Your task to perform on an android device: What is the capital of India? Image 0: 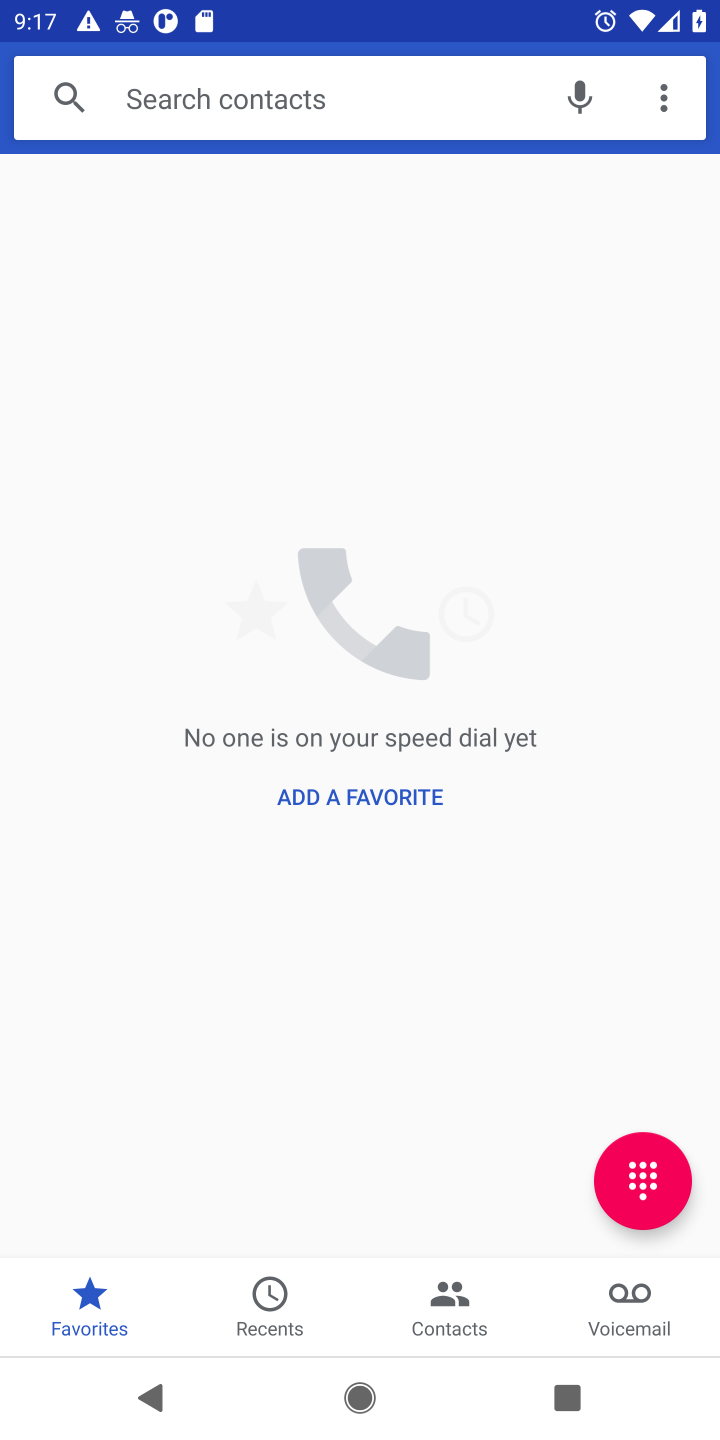
Step 0: press home button
Your task to perform on an android device: What is the capital of India? Image 1: 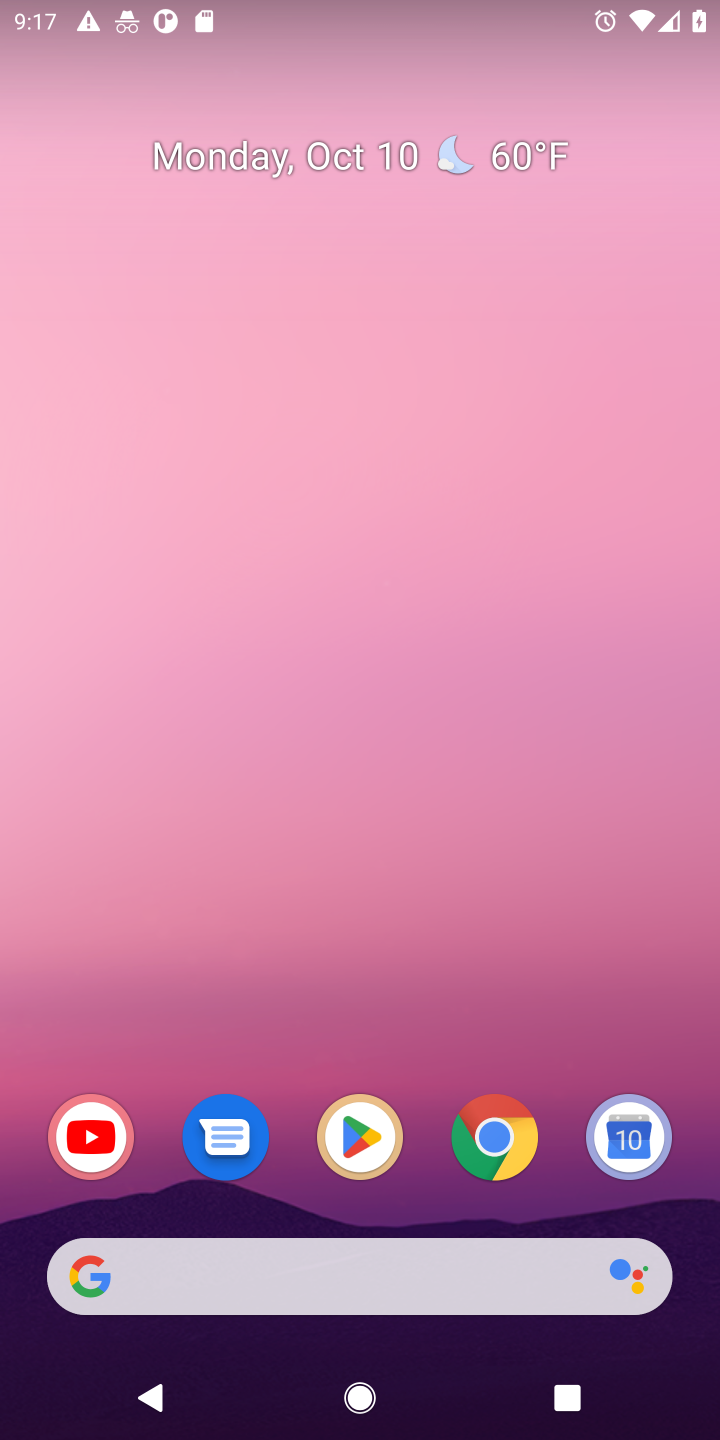
Step 1: click (499, 1138)
Your task to perform on an android device: What is the capital of India? Image 2: 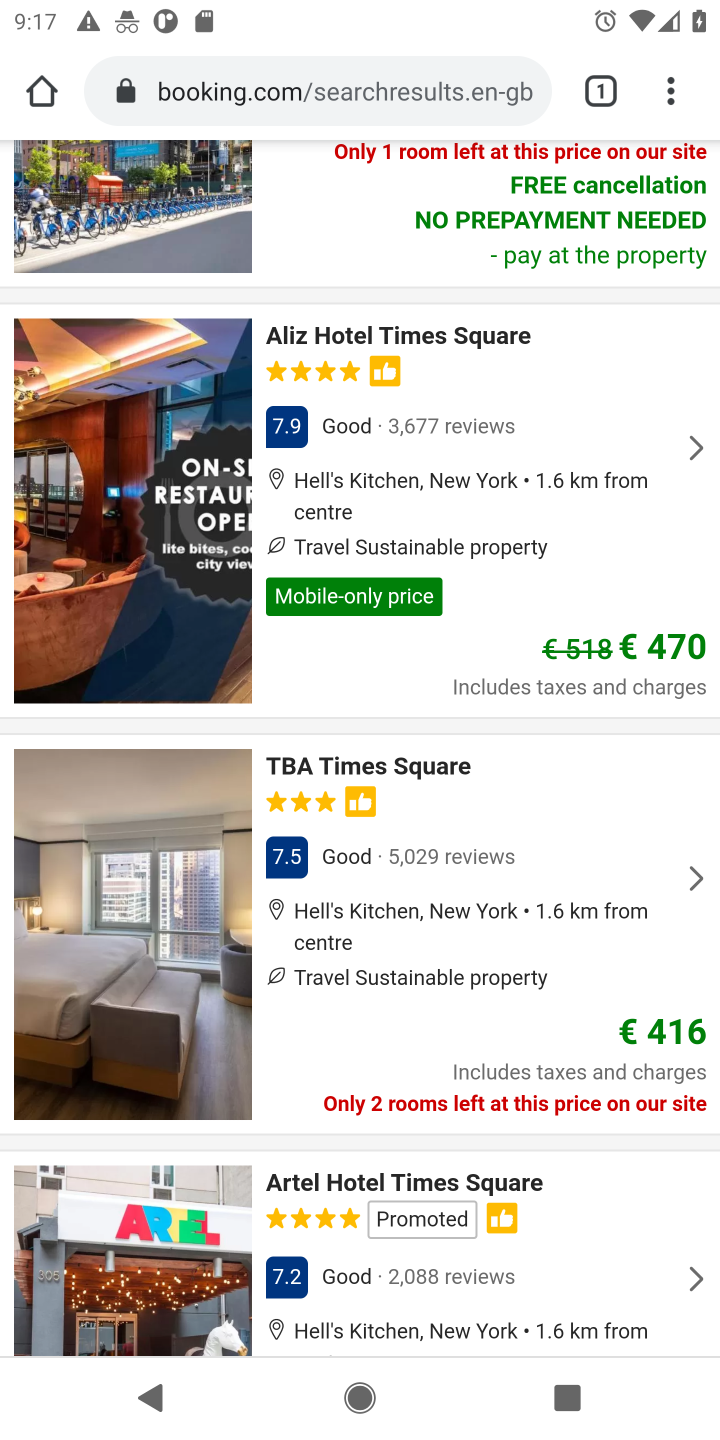
Step 2: click (297, 70)
Your task to perform on an android device: What is the capital of India? Image 3: 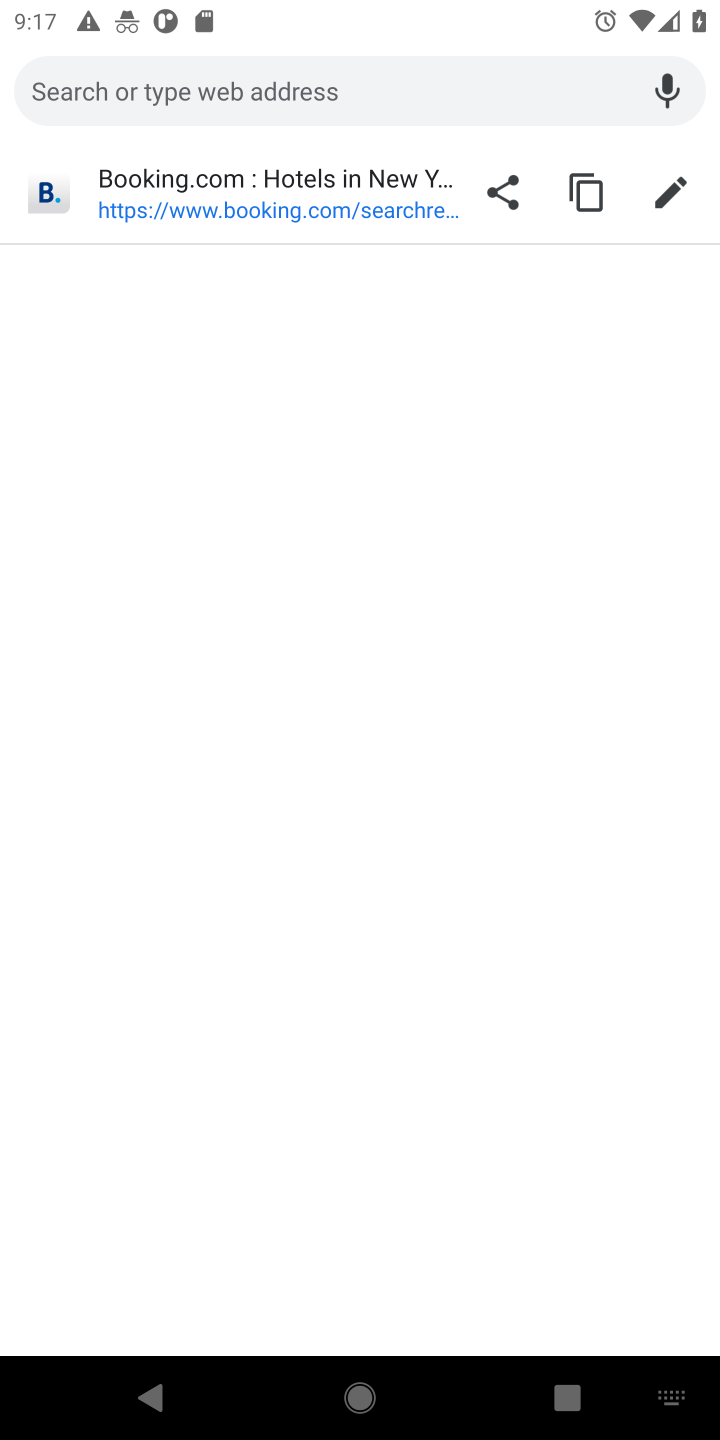
Step 3: type "capital of india"
Your task to perform on an android device: What is the capital of India? Image 4: 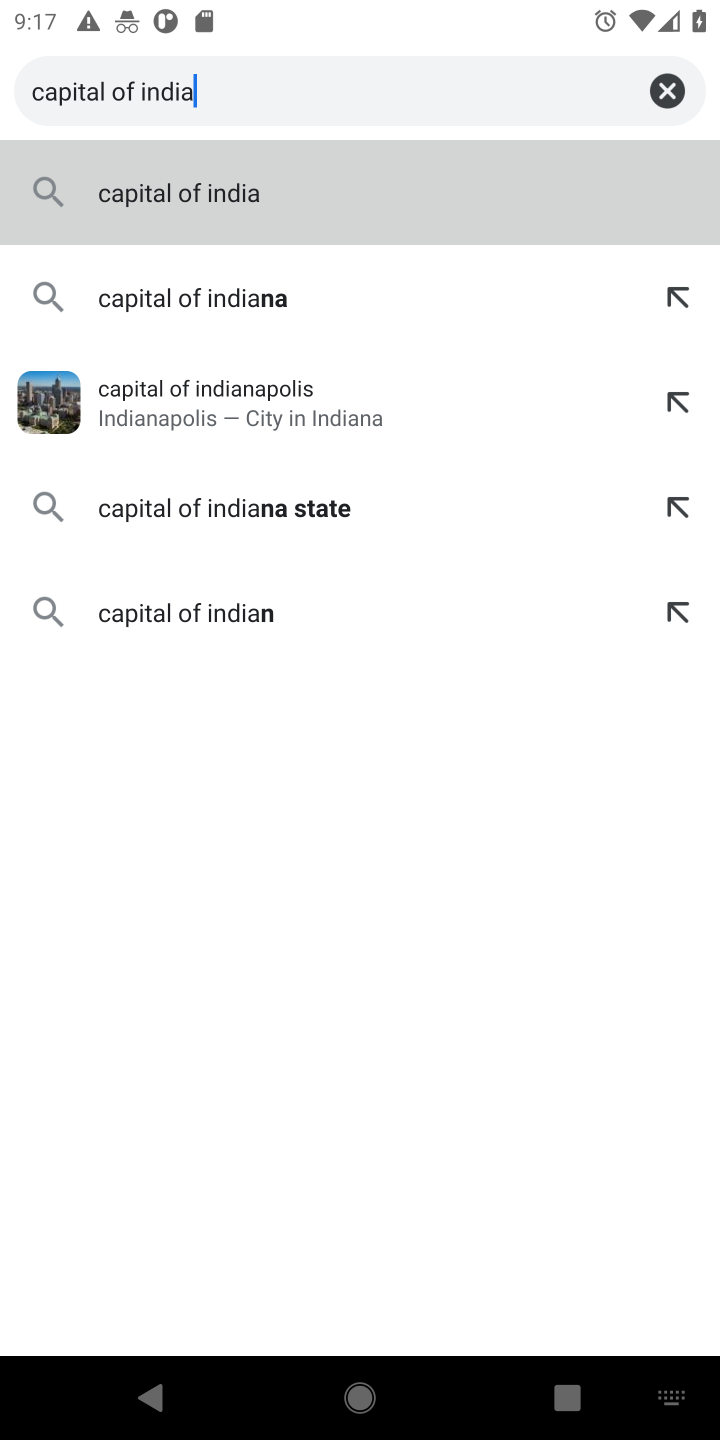
Step 4: click (153, 177)
Your task to perform on an android device: What is the capital of India? Image 5: 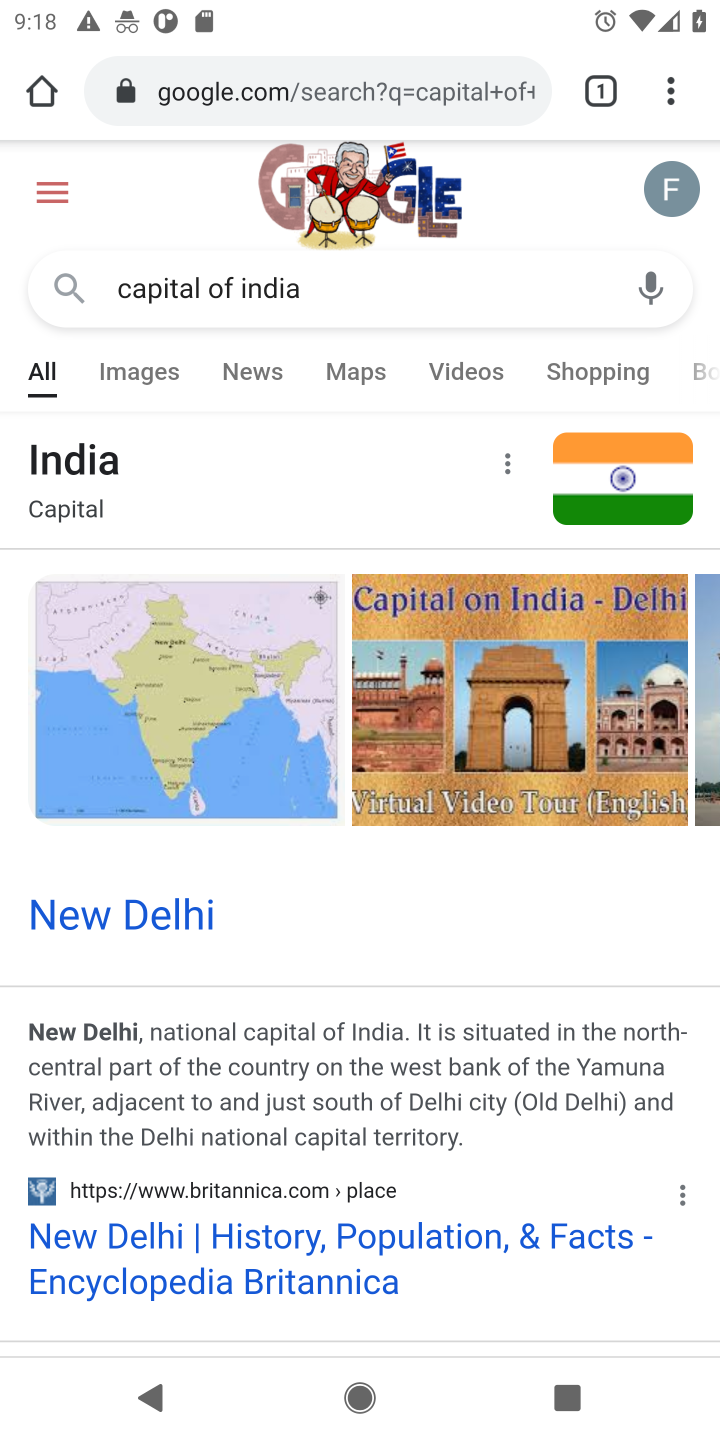
Step 5: task complete